Your task to perform on an android device: turn off airplane mode Image 0: 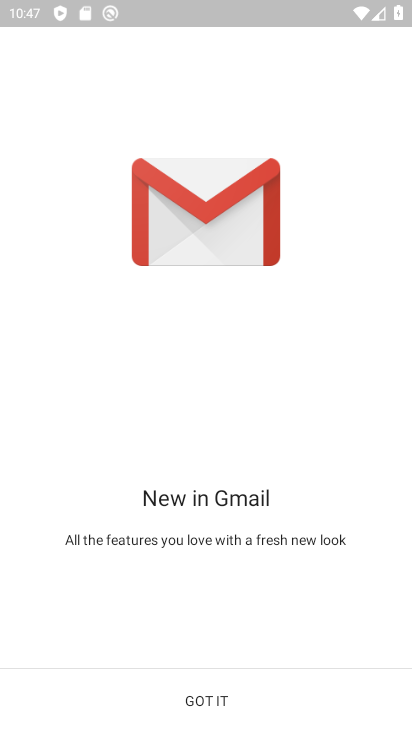
Step 0: click (190, 683)
Your task to perform on an android device: turn off airplane mode Image 1: 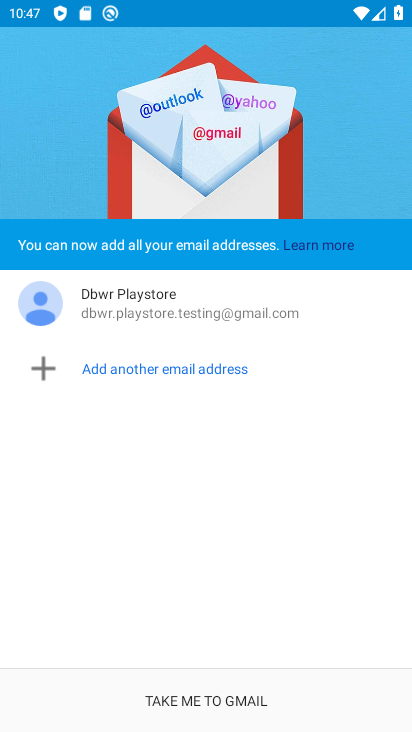
Step 1: task complete